Your task to perform on an android device: delete browsing data in the chrome app Image 0: 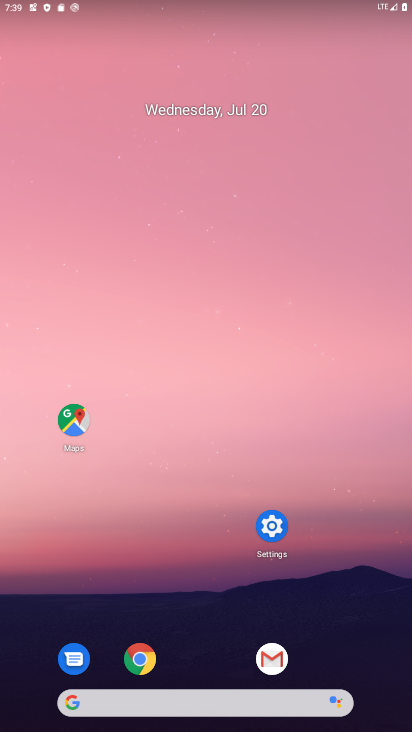
Step 0: click (141, 656)
Your task to perform on an android device: delete browsing data in the chrome app Image 1: 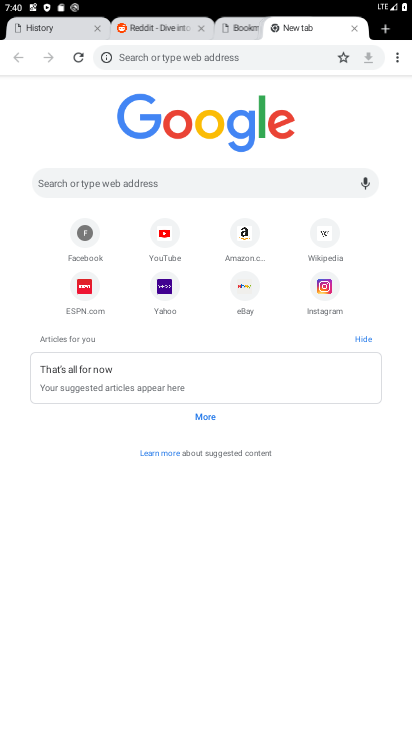
Step 1: click (395, 64)
Your task to perform on an android device: delete browsing data in the chrome app Image 2: 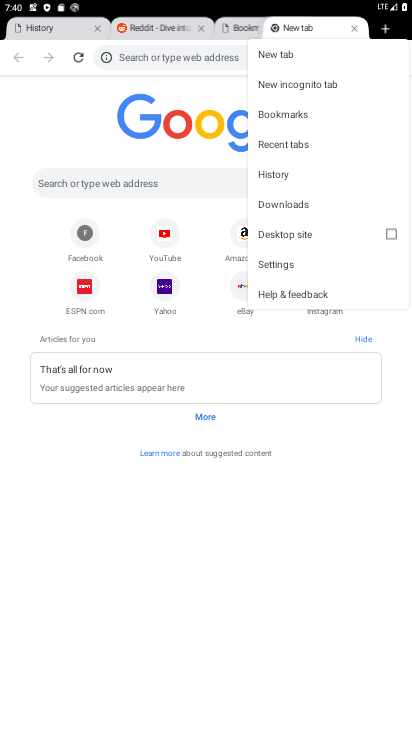
Step 2: click (285, 263)
Your task to perform on an android device: delete browsing data in the chrome app Image 3: 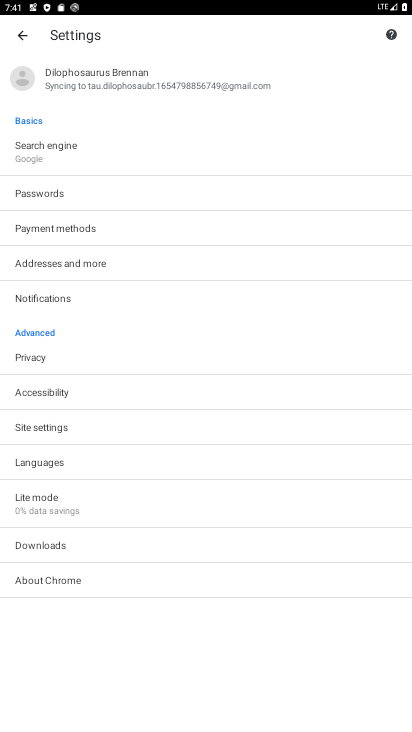
Step 3: click (34, 355)
Your task to perform on an android device: delete browsing data in the chrome app Image 4: 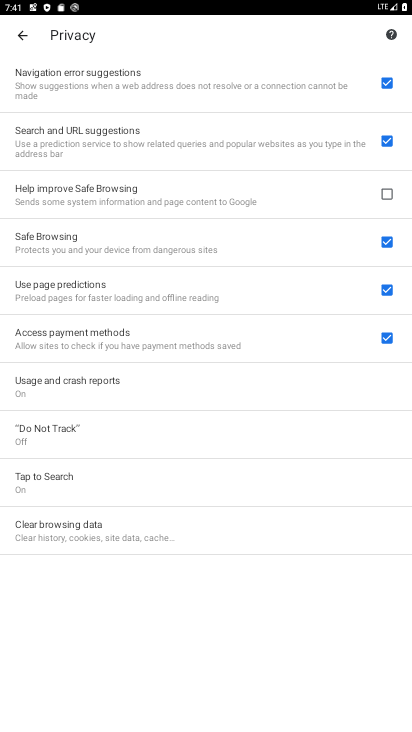
Step 4: click (115, 527)
Your task to perform on an android device: delete browsing data in the chrome app Image 5: 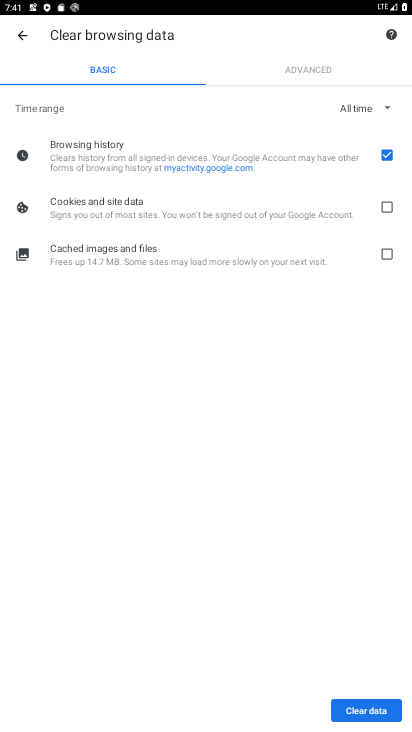
Step 5: click (373, 715)
Your task to perform on an android device: delete browsing data in the chrome app Image 6: 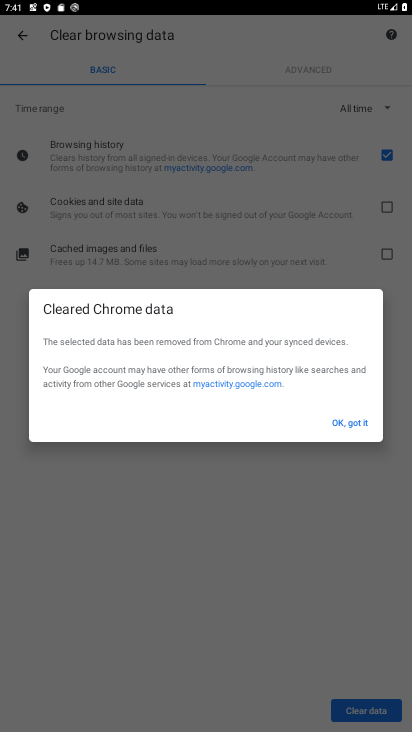
Step 6: click (358, 426)
Your task to perform on an android device: delete browsing data in the chrome app Image 7: 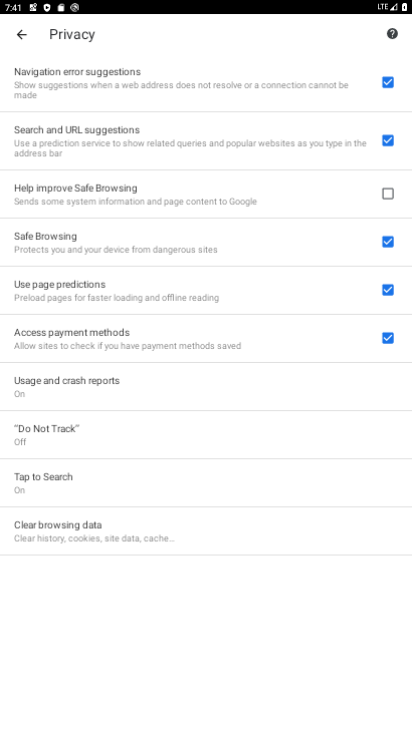
Step 7: task complete